Your task to perform on an android device: Open Amazon Image 0: 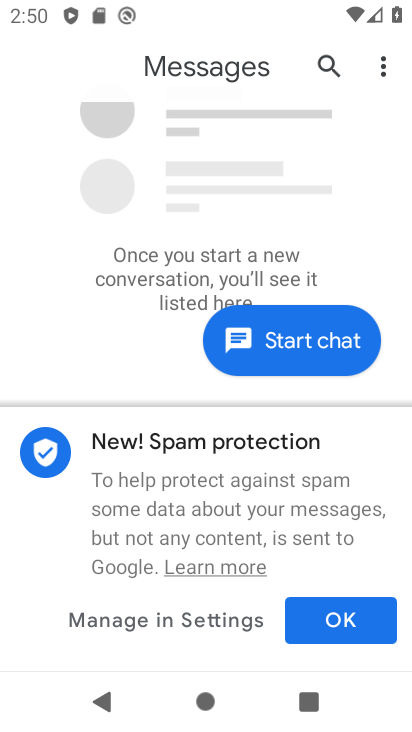
Step 0: press home button
Your task to perform on an android device: Open Amazon Image 1: 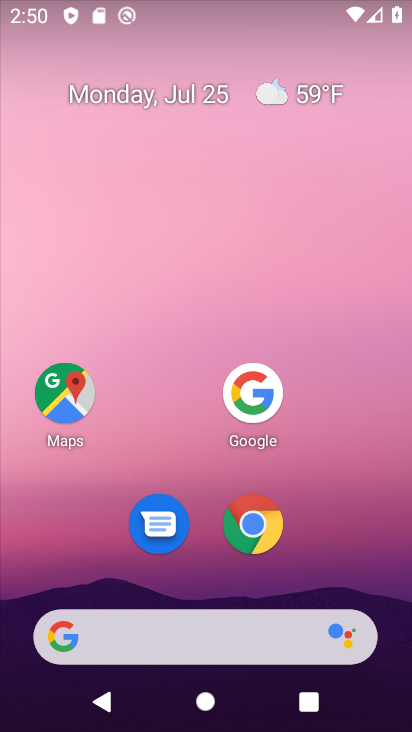
Step 1: click (249, 524)
Your task to perform on an android device: Open Amazon Image 2: 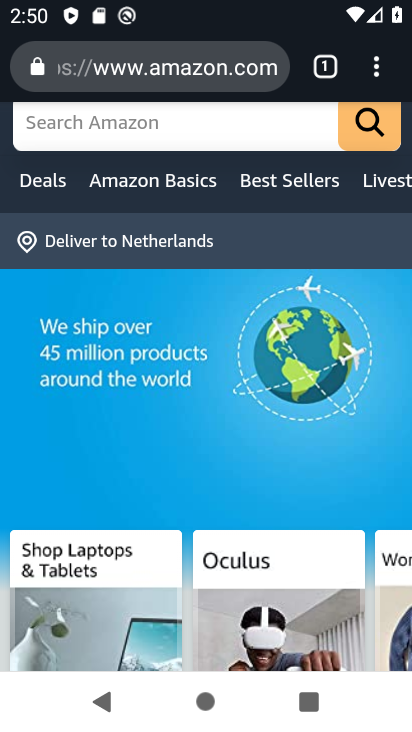
Step 2: task complete